Your task to perform on an android device: Where can I buy a nice beach tote? Image 0: 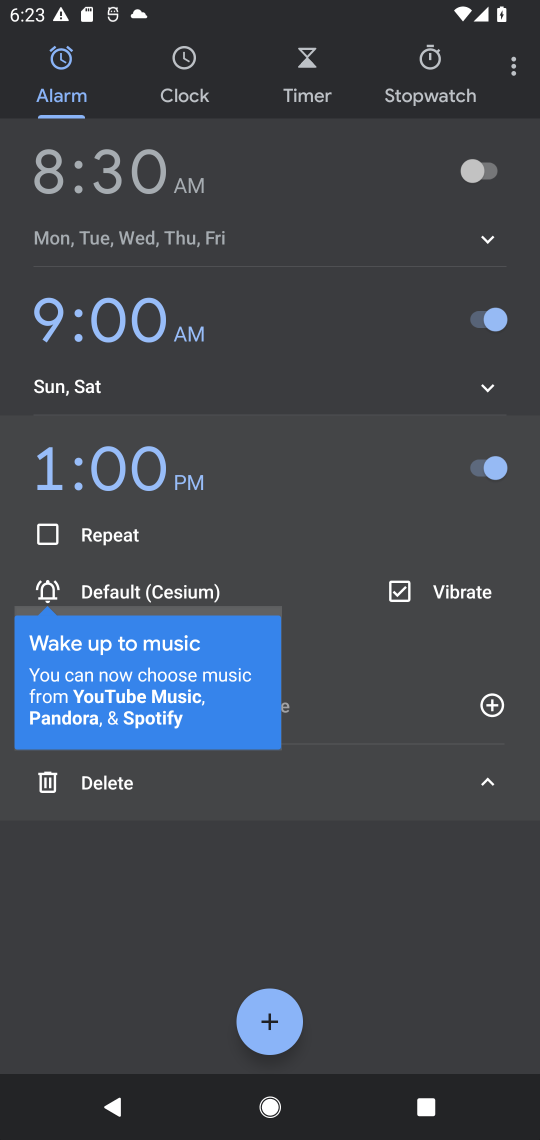
Step 0: press home button
Your task to perform on an android device: Where can I buy a nice beach tote? Image 1: 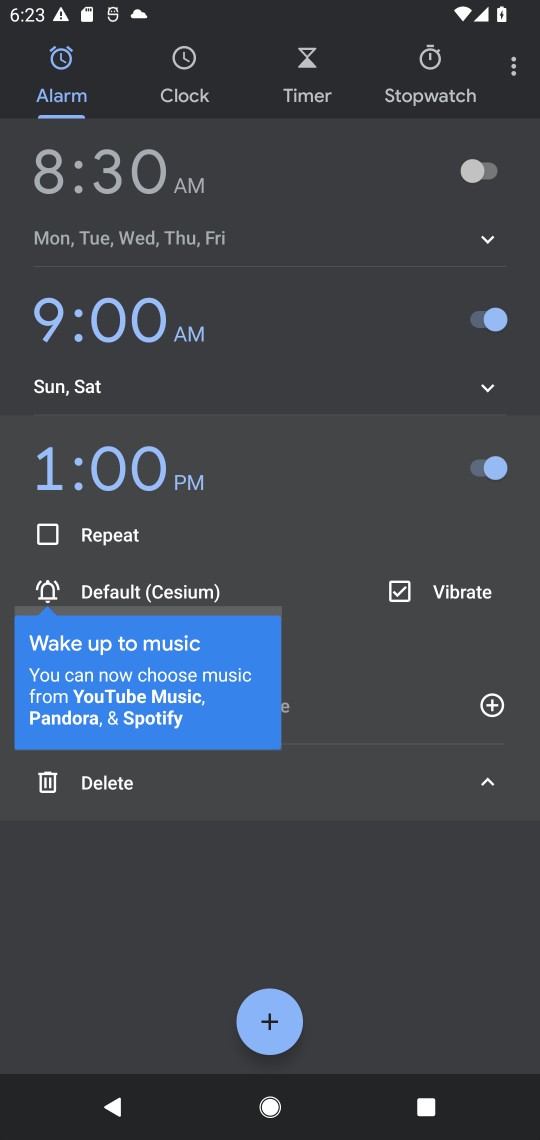
Step 1: press home button
Your task to perform on an android device: Where can I buy a nice beach tote? Image 2: 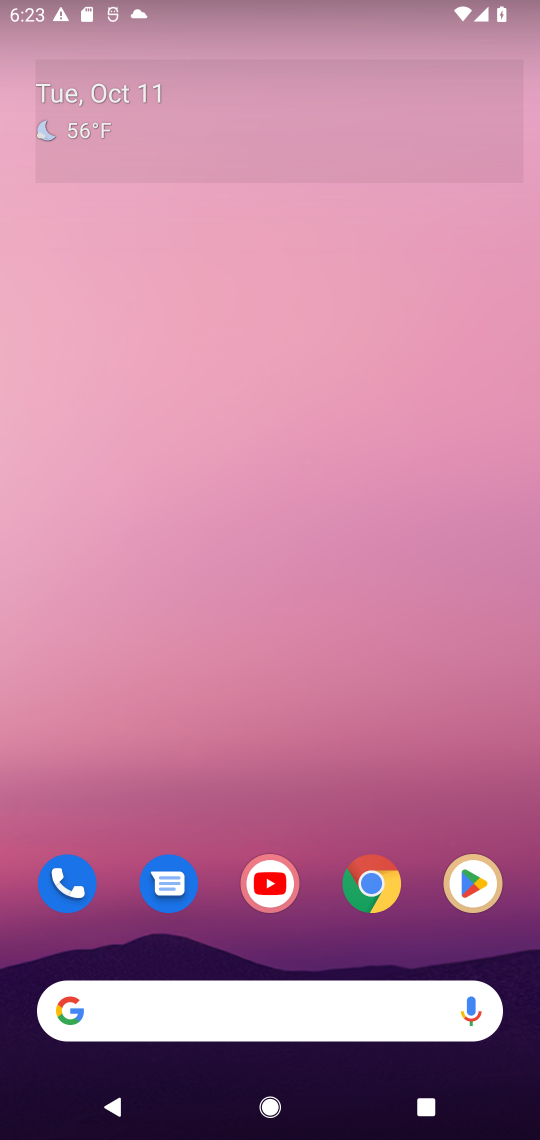
Step 2: drag from (318, 945) to (326, 0)
Your task to perform on an android device: Where can I buy a nice beach tote? Image 3: 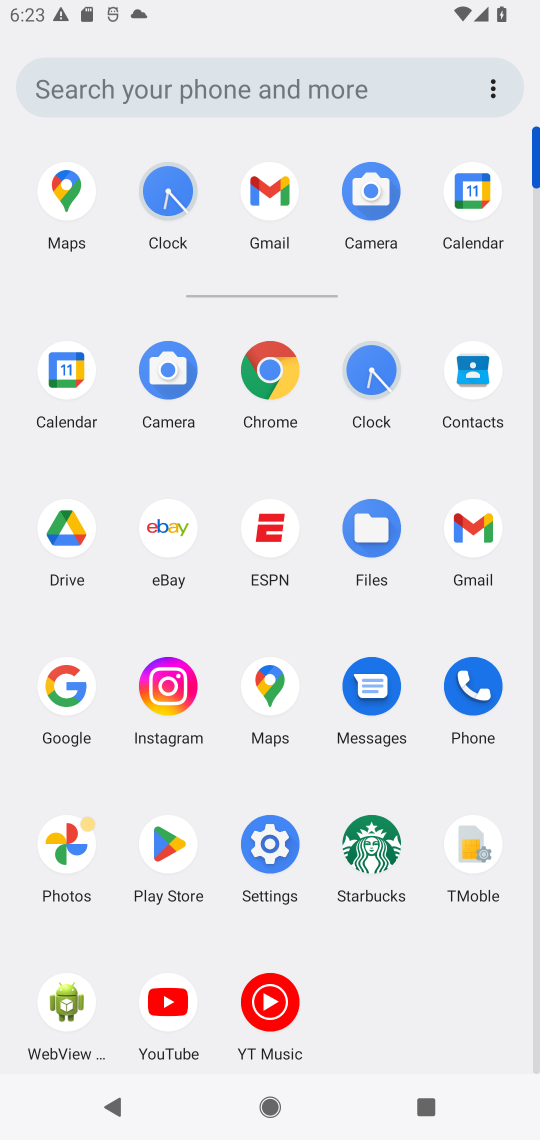
Step 3: click (287, 364)
Your task to perform on an android device: Where can I buy a nice beach tote? Image 4: 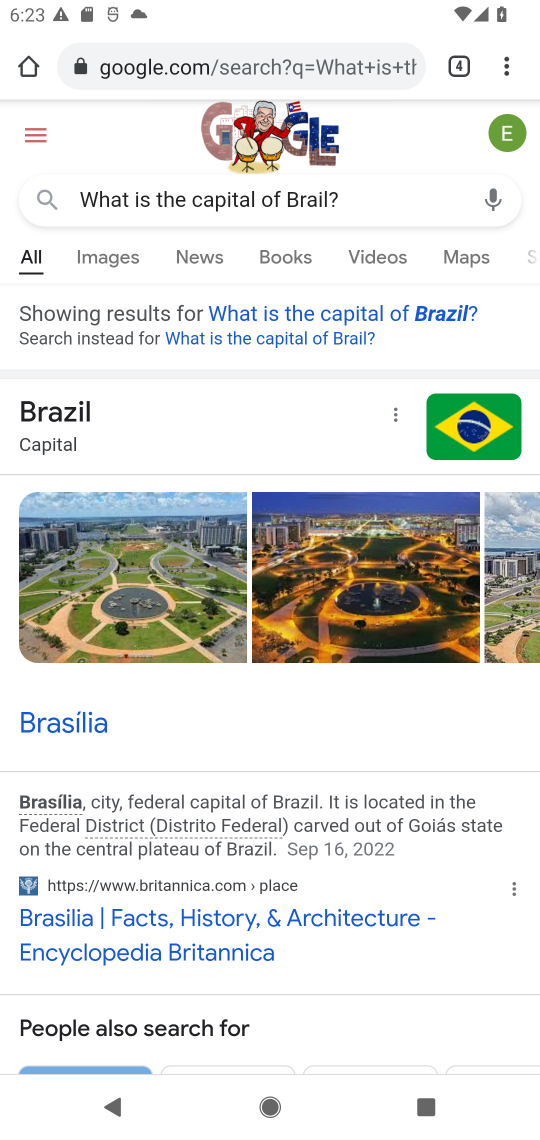
Step 4: click (313, 73)
Your task to perform on an android device: Where can I buy a nice beach tote? Image 5: 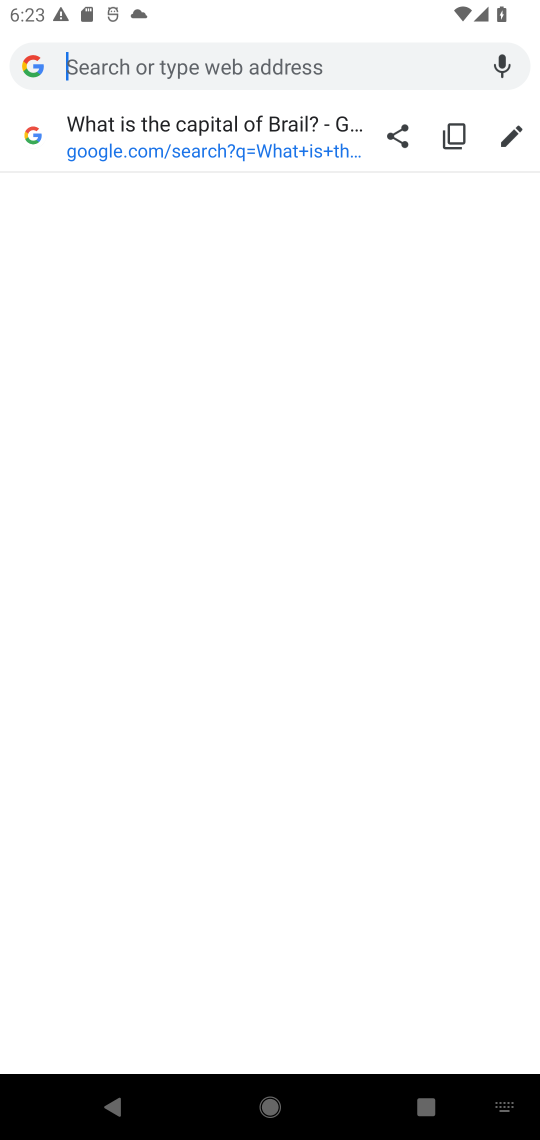
Step 5: type "Where can I buy "
Your task to perform on an android device: Where can I buy a nice beach tote? Image 6: 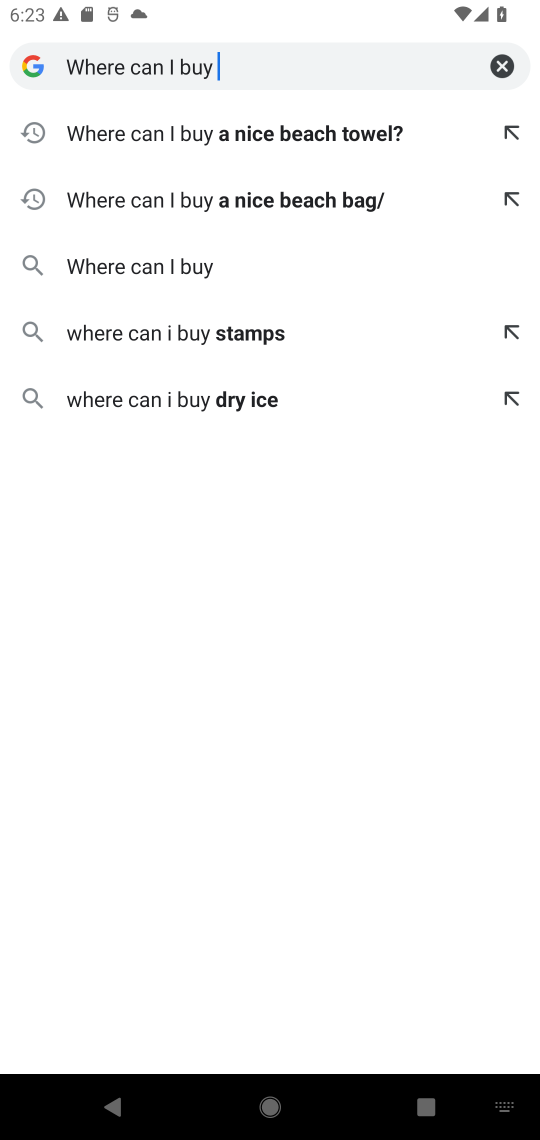
Step 6: type "nice beach tote?"
Your task to perform on an android device: Where can I buy a nice beach tote? Image 7: 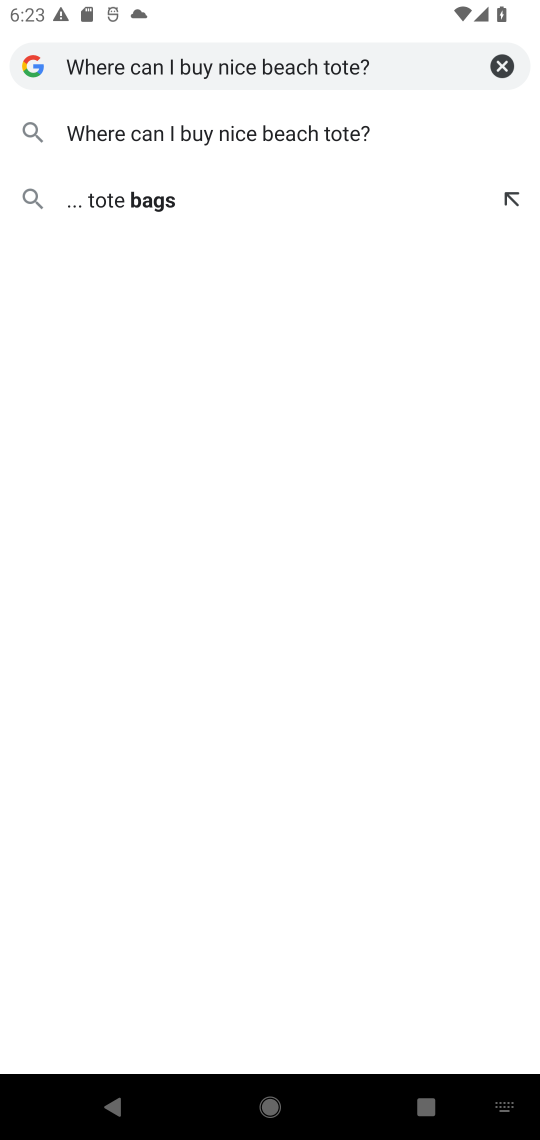
Step 7: press enter
Your task to perform on an android device: Where can I buy a nice beach tote? Image 8: 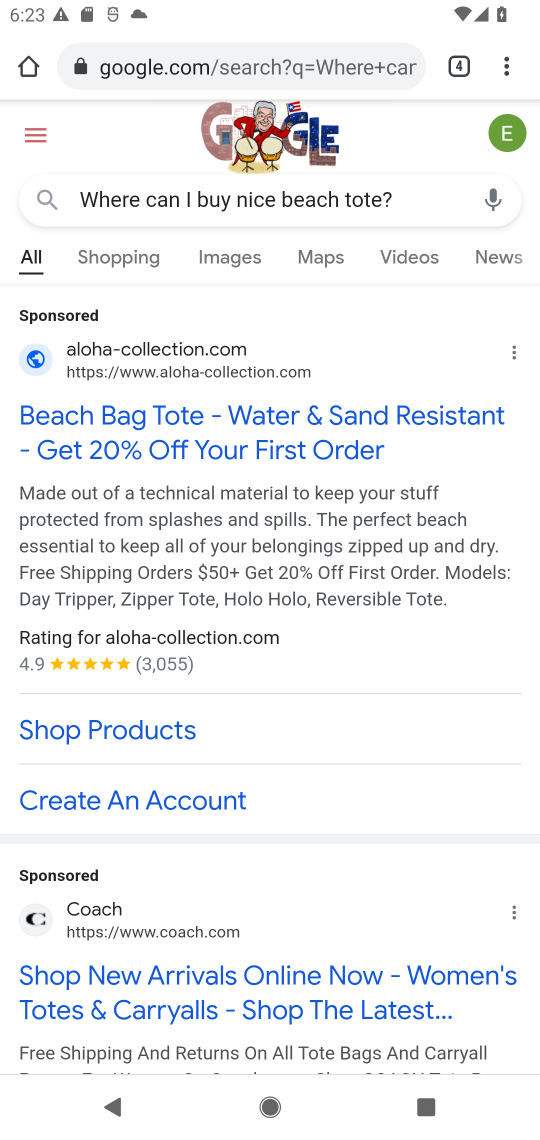
Step 8: drag from (382, 917) to (392, 318)
Your task to perform on an android device: Where can I buy a nice beach tote? Image 9: 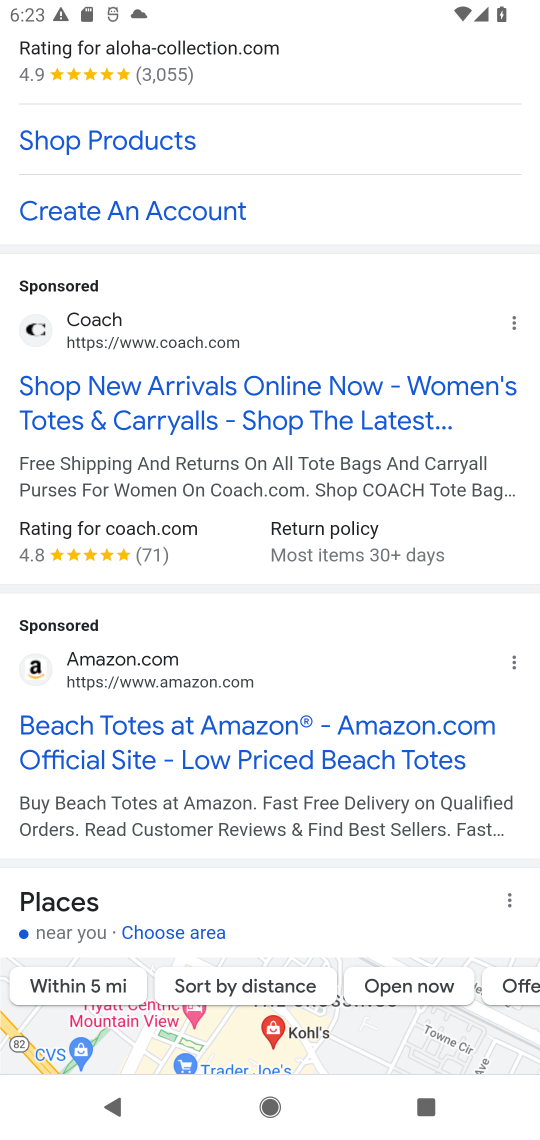
Step 9: click (271, 405)
Your task to perform on an android device: Where can I buy a nice beach tote? Image 10: 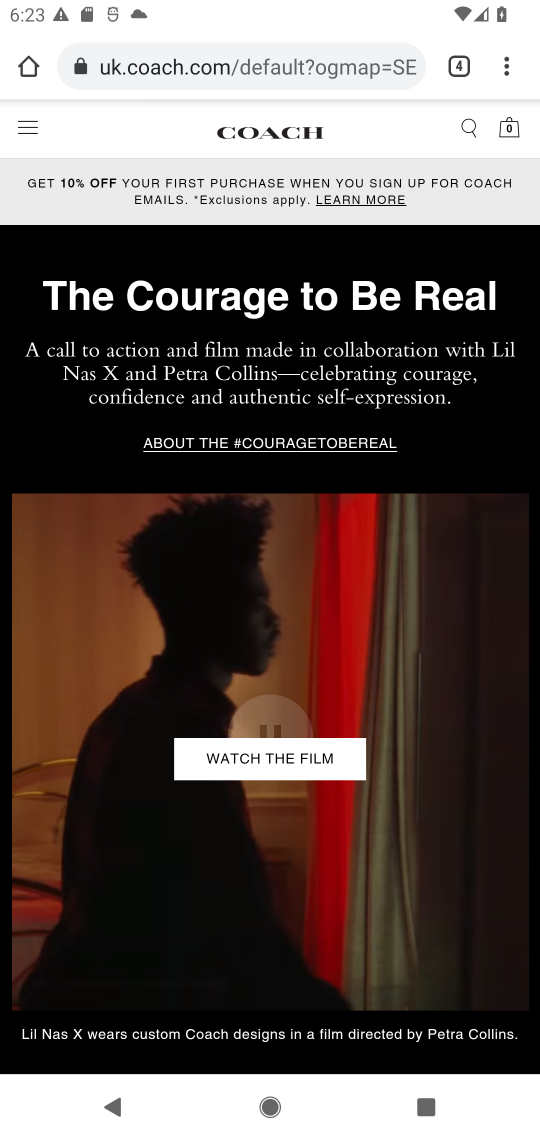
Step 10: task complete